Your task to perform on an android device: Go to notification settings Image 0: 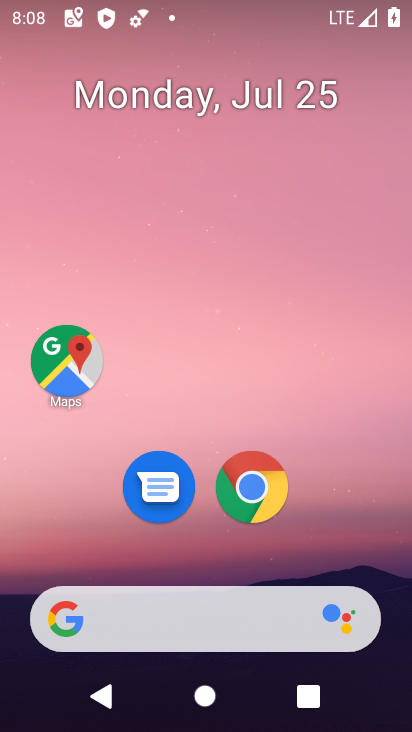
Step 0: drag from (164, 545) to (336, 29)
Your task to perform on an android device: Go to notification settings Image 1: 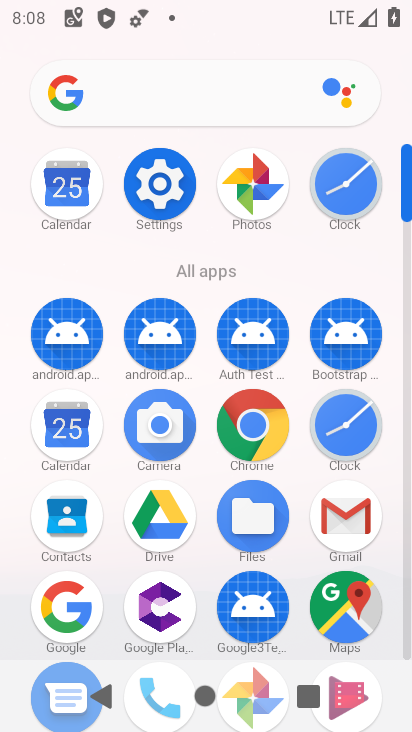
Step 1: click (153, 182)
Your task to perform on an android device: Go to notification settings Image 2: 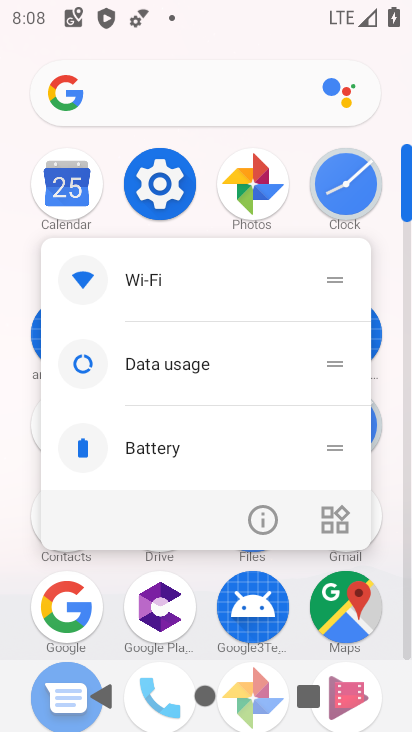
Step 2: click (164, 196)
Your task to perform on an android device: Go to notification settings Image 3: 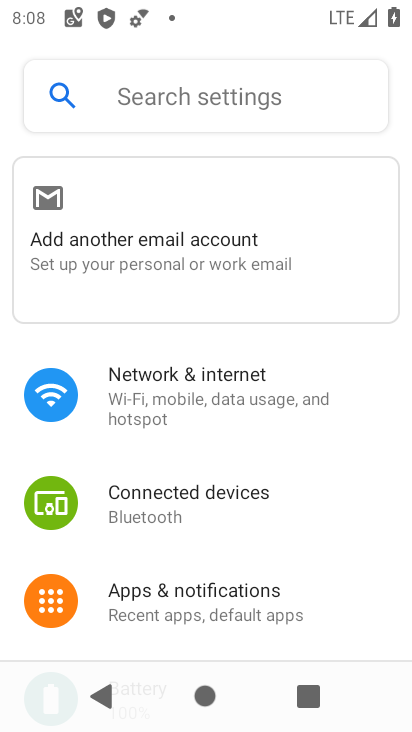
Step 3: click (201, 608)
Your task to perform on an android device: Go to notification settings Image 4: 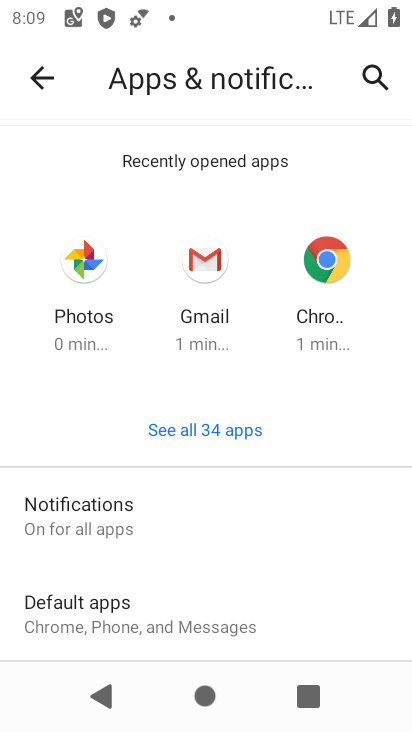
Step 4: click (145, 508)
Your task to perform on an android device: Go to notification settings Image 5: 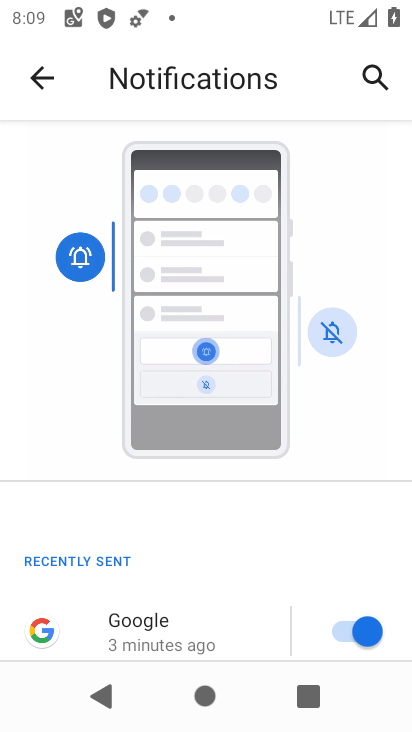
Step 5: task complete